Your task to perform on an android device: turn on improve location accuracy Image 0: 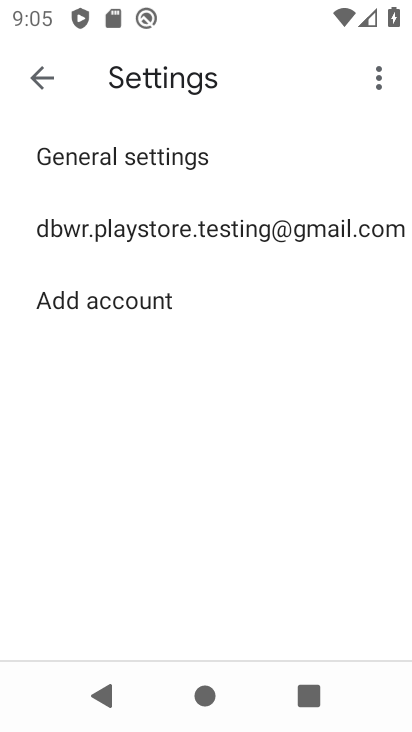
Step 0: press back button
Your task to perform on an android device: turn on improve location accuracy Image 1: 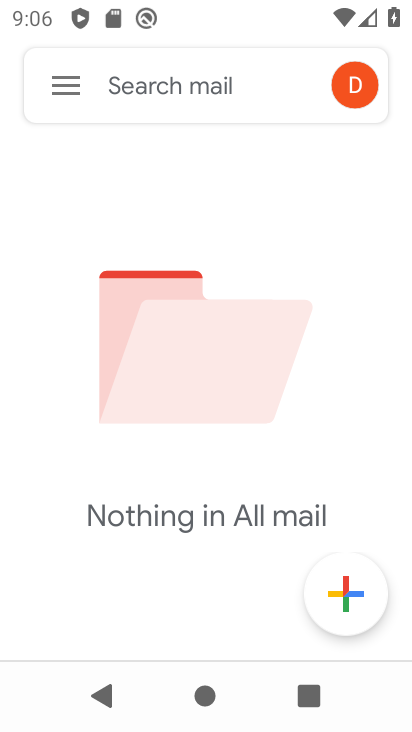
Step 1: press back button
Your task to perform on an android device: turn on improve location accuracy Image 2: 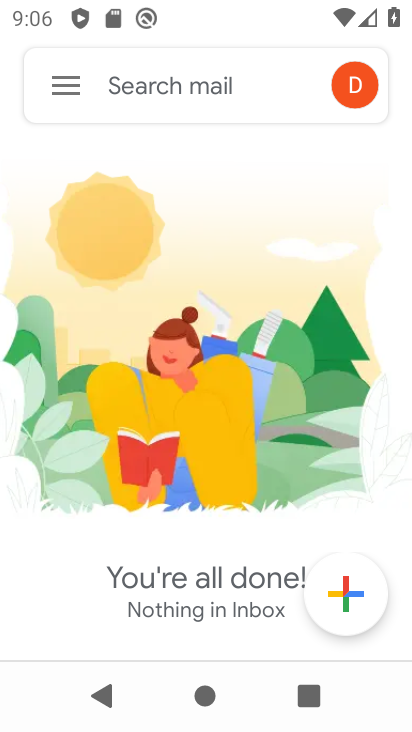
Step 2: press back button
Your task to perform on an android device: turn on improve location accuracy Image 3: 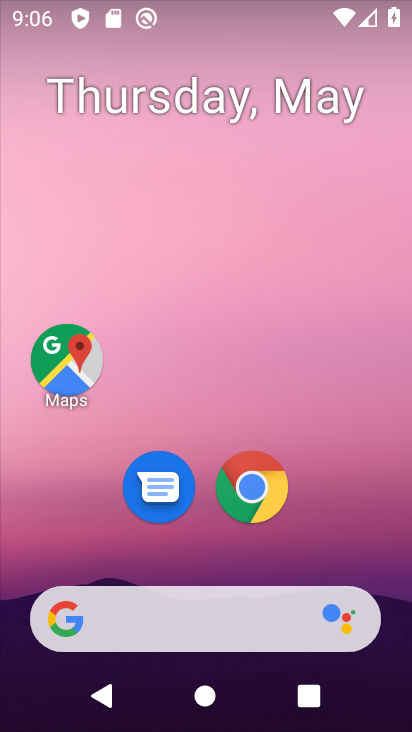
Step 3: drag from (240, 532) to (263, 10)
Your task to perform on an android device: turn on improve location accuracy Image 4: 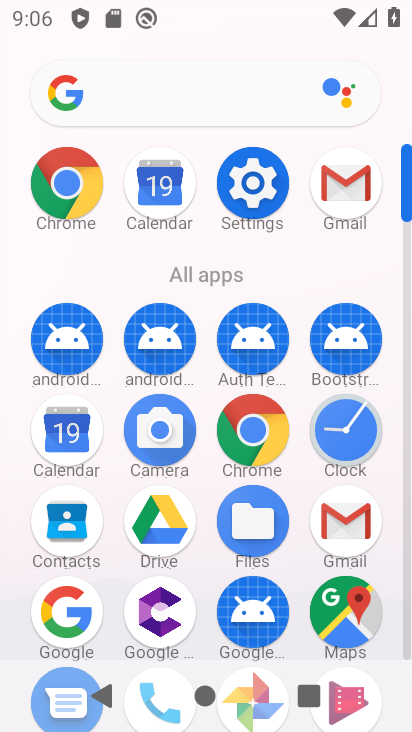
Step 4: click (256, 191)
Your task to perform on an android device: turn on improve location accuracy Image 5: 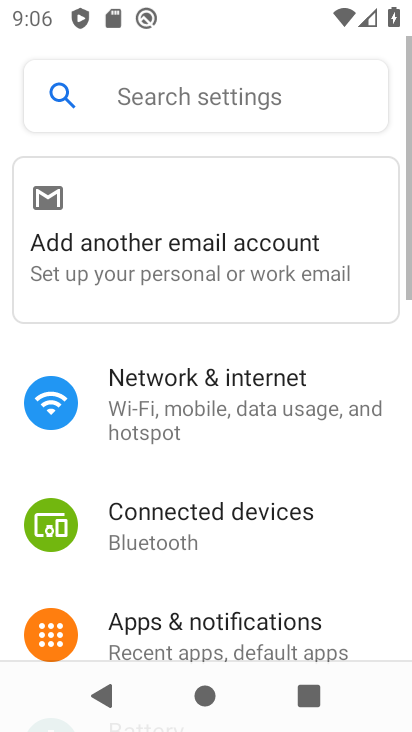
Step 5: drag from (268, 629) to (325, 144)
Your task to perform on an android device: turn on improve location accuracy Image 6: 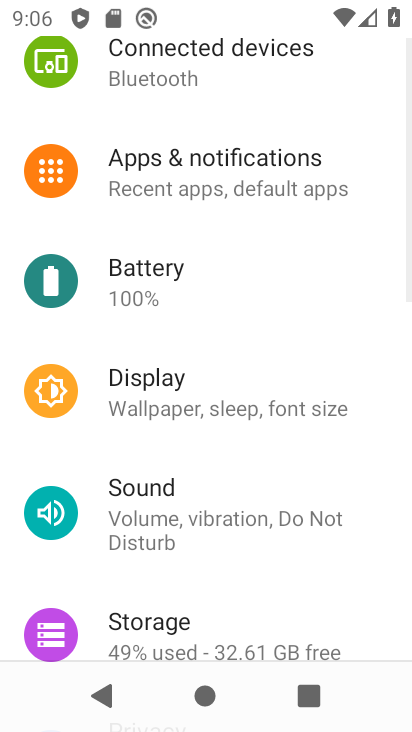
Step 6: drag from (189, 607) to (263, 88)
Your task to perform on an android device: turn on improve location accuracy Image 7: 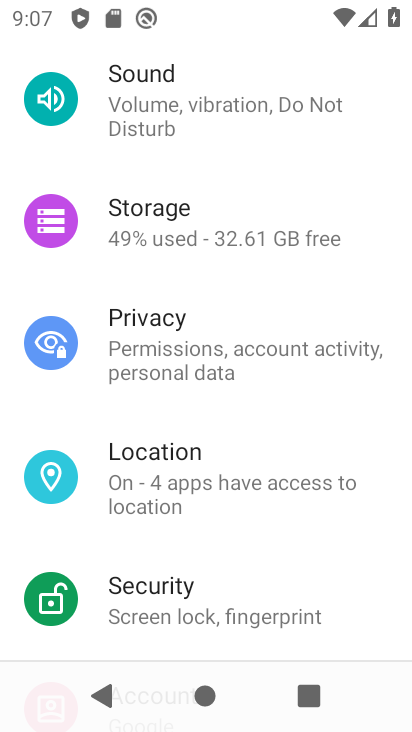
Step 7: click (174, 480)
Your task to perform on an android device: turn on improve location accuracy Image 8: 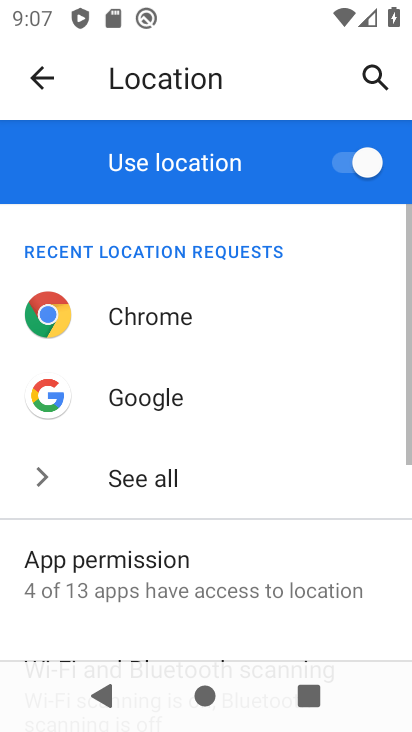
Step 8: drag from (114, 591) to (251, 108)
Your task to perform on an android device: turn on improve location accuracy Image 9: 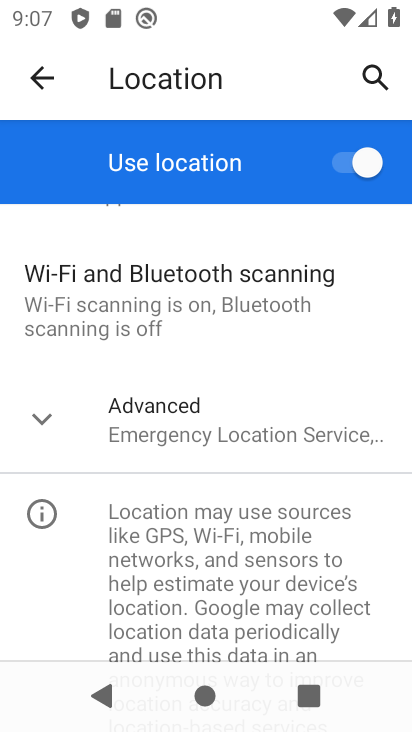
Step 9: click (209, 443)
Your task to perform on an android device: turn on improve location accuracy Image 10: 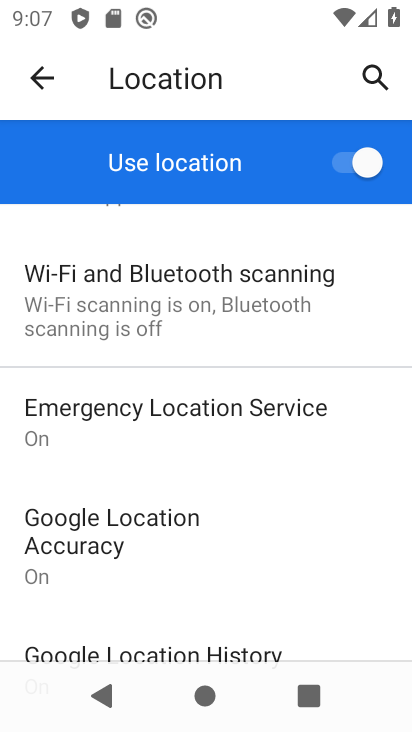
Step 10: click (113, 550)
Your task to perform on an android device: turn on improve location accuracy Image 11: 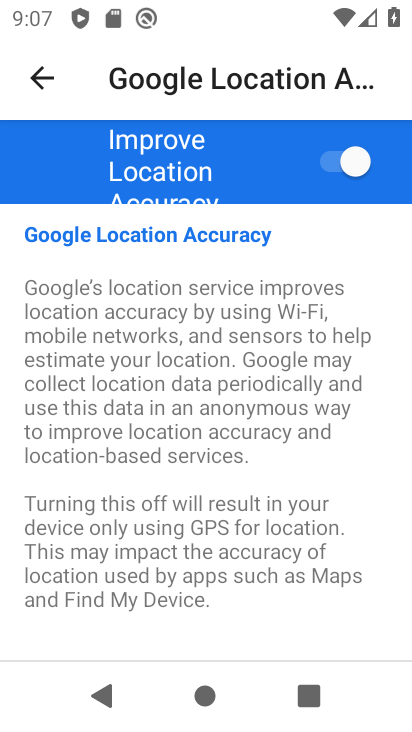
Step 11: click (346, 168)
Your task to perform on an android device: turn on improve location accuracy Image 12: 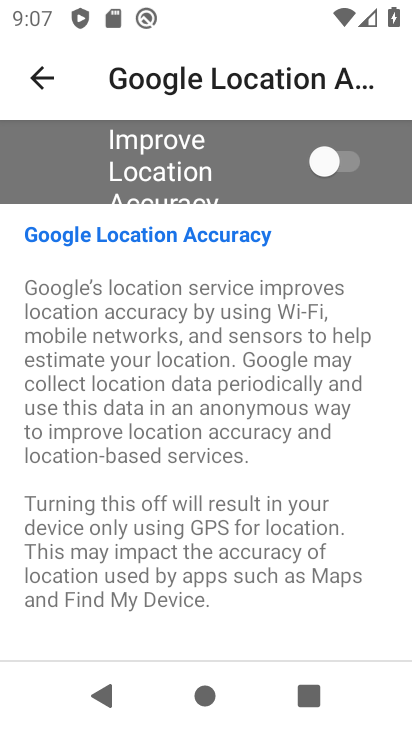
Step 12: click (346, 168)
Your task to perform on an android device: turn on improve location accuracy Image 13: 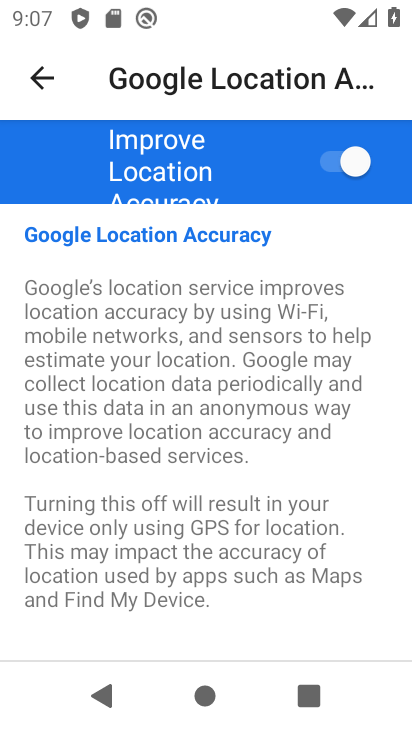
Step 13: task complete